Your task to perform on an android device: toggle wifi Image 0: 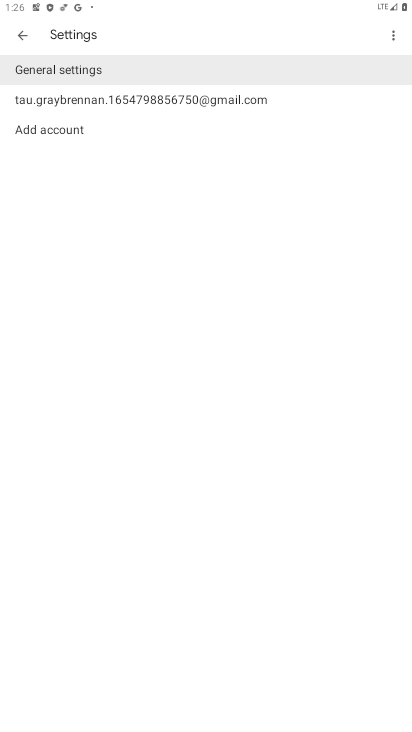
Step 0: press home button
Your task to perform on an android device: toggle wifi Image 1: 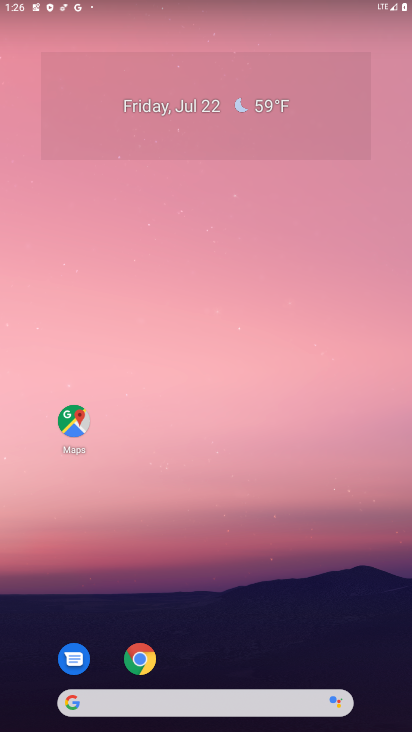
Step 1: drag from (323, 566) to (345, 5)
Your task to perform on an android device: toggle wifi Image 2: 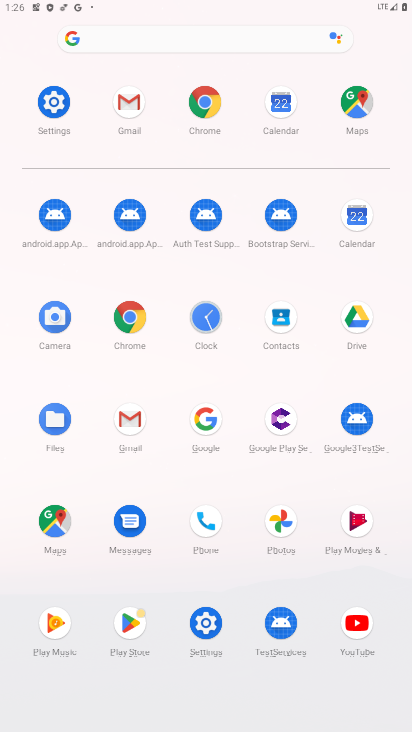
Step 2: click (60, 101)
Your task to perform on an android device: toggle wifi Image 3: 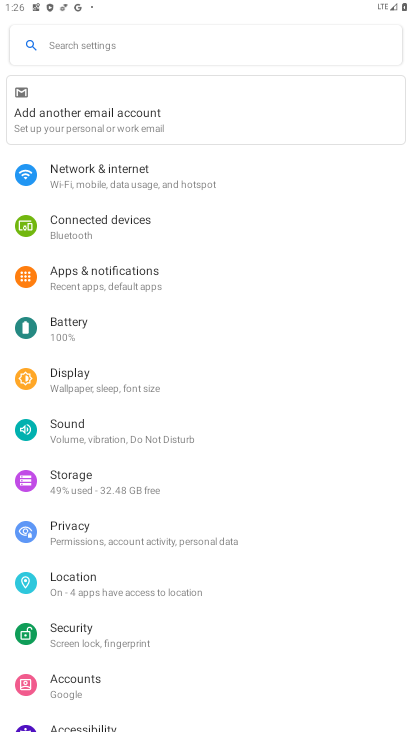
Step 3: click (77, 188)
Your task to perform on an android device: toggle wifi Image 4: 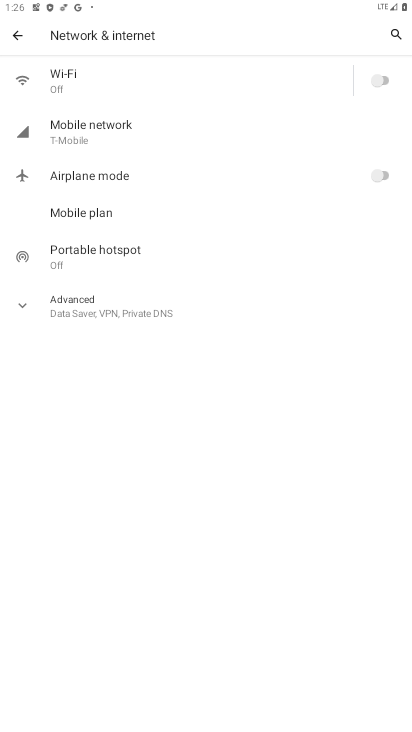
Step 4: click (392, 74)
Your task to perform on an android device: toggle wifi Image 5: 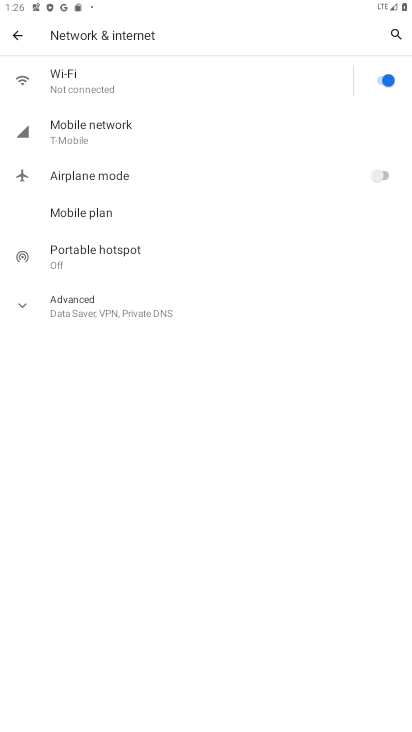
Step 5: task complete